Your task to perform on an android device: open a new tab in the chrome app Image 0: 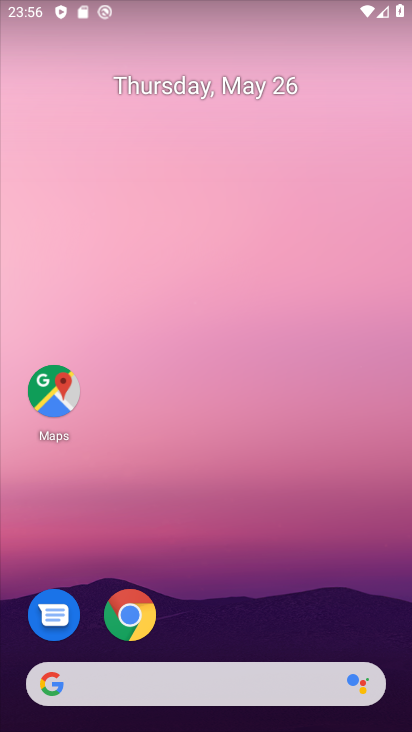
Step 0: drag from (353, 634) to (347, 208)
Your task to perform on an android device: open a new tab in the chrome app Image 1: 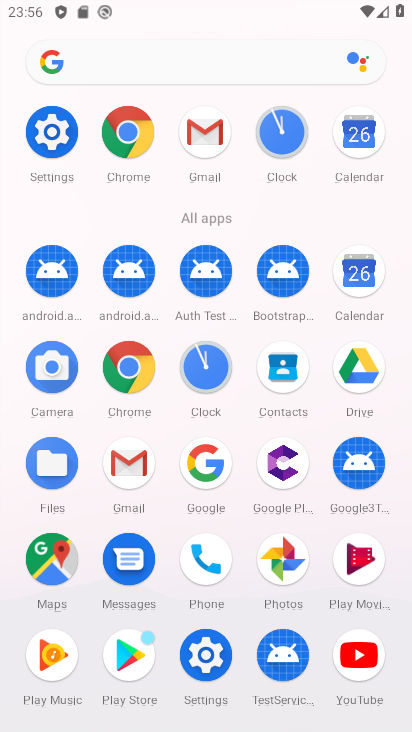
Step 1: click (133, 375)
Your task to perform on an android device: open a new tab in the chrome app Image 2: 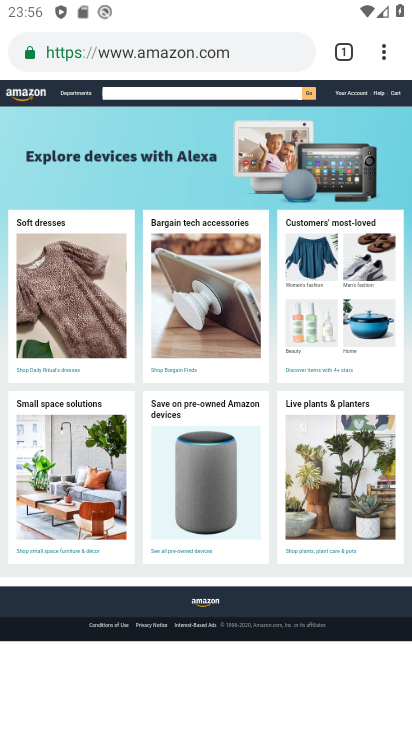
Step 2: click (384, 58)
Your task to perform on an android device: open a new tab in the chrome app Image 3: 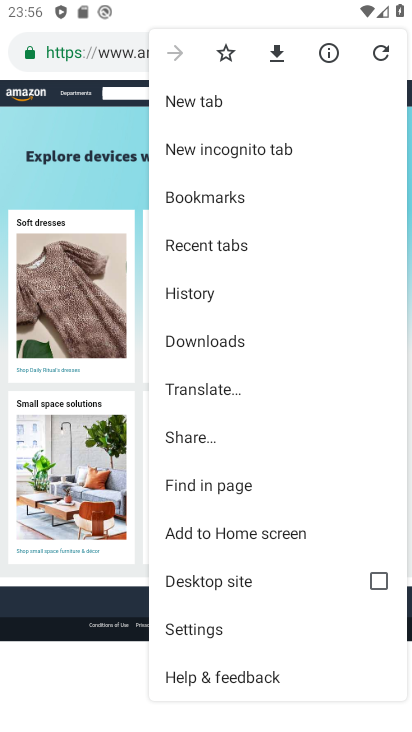
Step 3: click (204, 103)
Your task to perform on an android device: open a new tab in the chrome app Image 4: 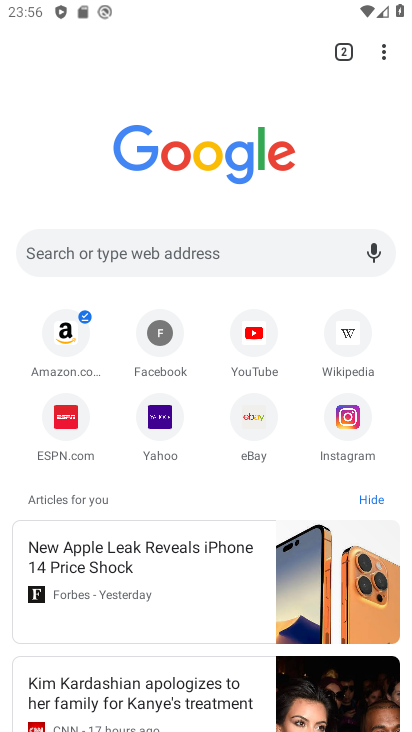
Step 4: task complete